Your task to perform on an android device: Go to Android settings Image 0: 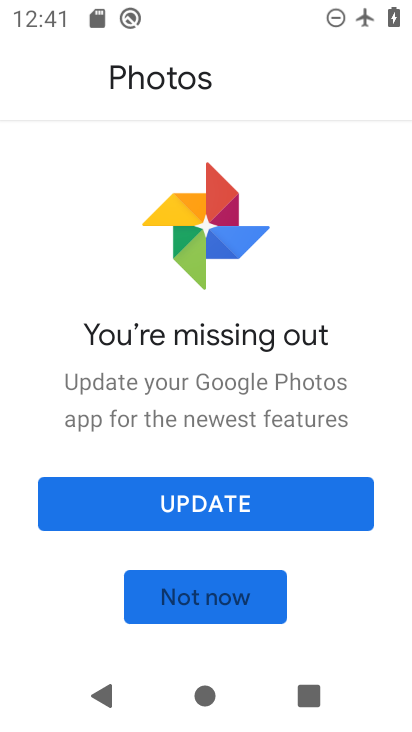
Step 0: press home button
Your task to perform on an android device: Go to Android settings Image 1: 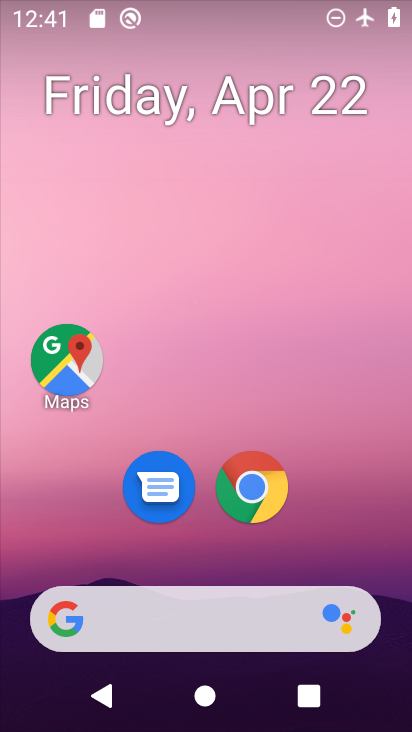
Step 1: drag from (245, 572) to (244, 173)
Your task to perform on an android device: Go to Android settings Image 2: 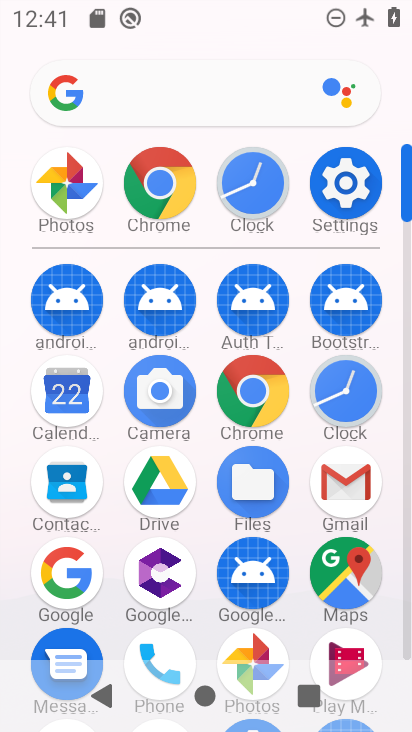
Step 2: click (338, 175)
Your task to perform on an android device: Go to Android settings Image 3: 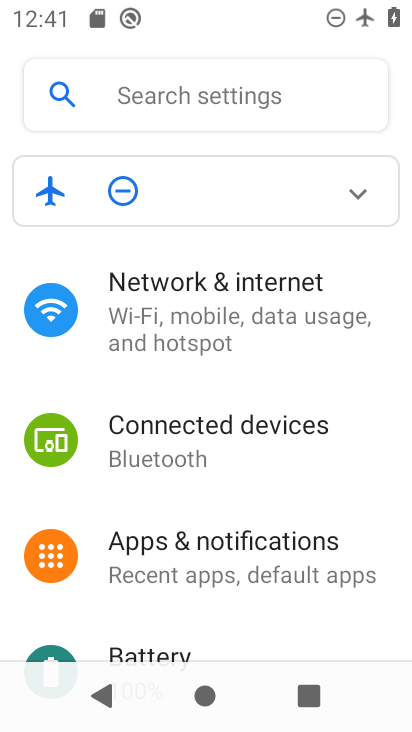
Step 3: drag from (251, 592) to (299, 77)
Your task to perform on an android device: Go to Android settings Image 4: 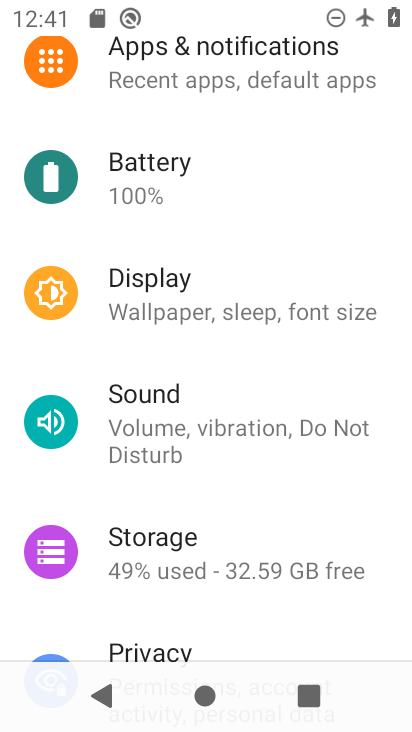
Step 4: drag from (149, 534) to (237, 44)
Your task to perform on an android device: Go to Android settings Image 5: 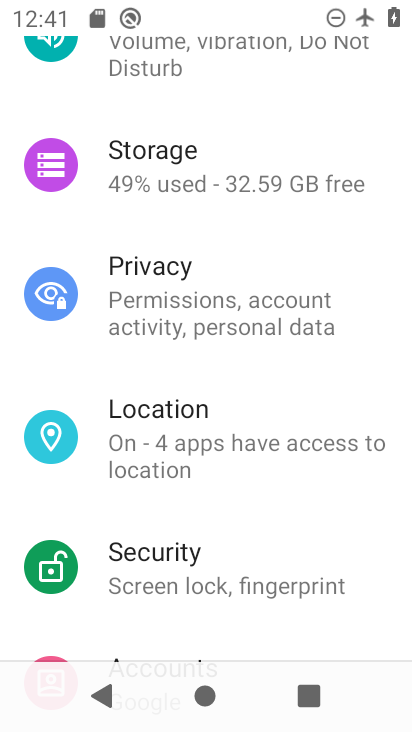
Step 5: drag from (184, 488) to (311, 65)
Your task to perform on an android device: Go to Android settings Image 6: 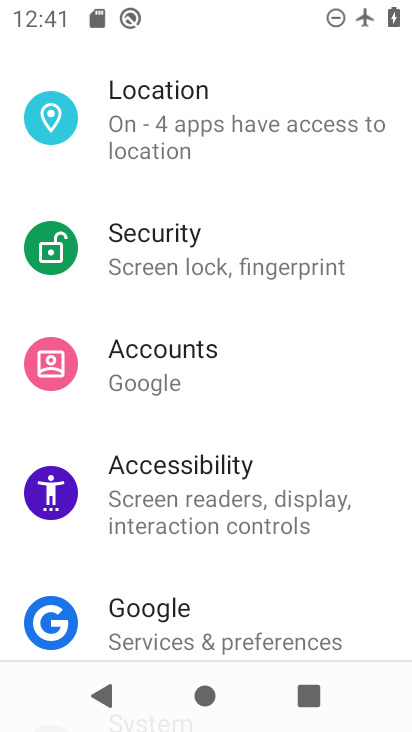
Step 6: drag from (170, 591) to (287, 166)
Your task to perform on an android device: Go to Android settings Image 7: 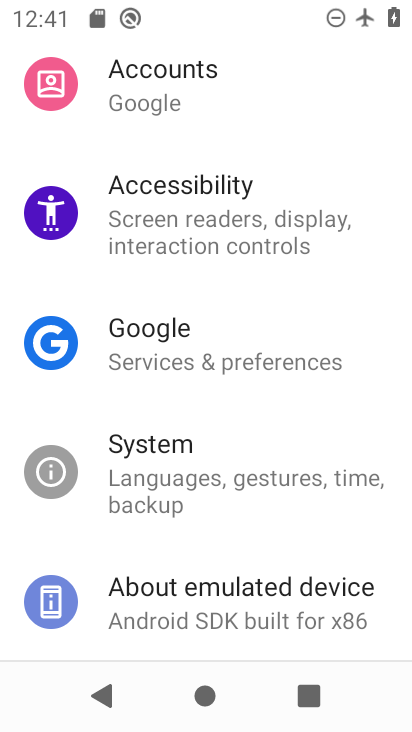
Step 7: click (208, 587)
Your task to perform on an android device: Go to Android settings Image 8: 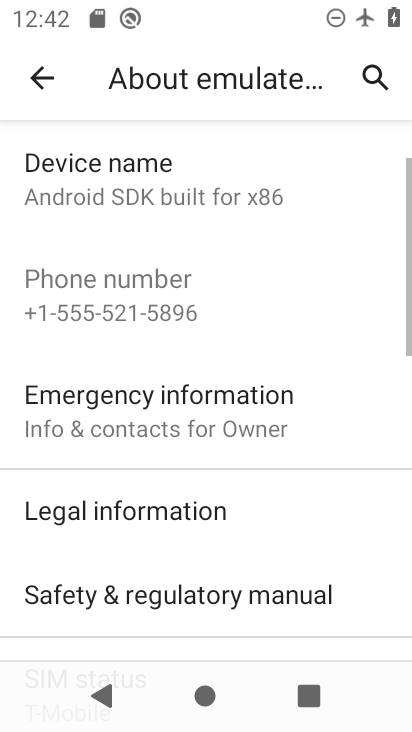
Step 8: drag from (211, 584) to (330, 141)
Your task to perform on an android device: Go to Android settings Image 9: 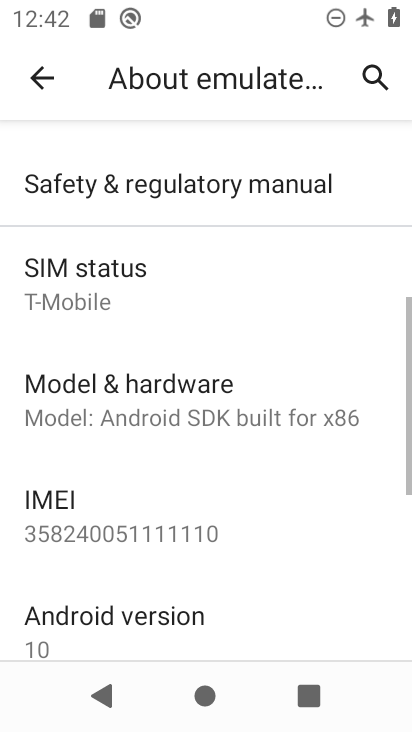
Step 9: click (137, 625)
Your task to perform on an android device: Go to Android settings Image 10: 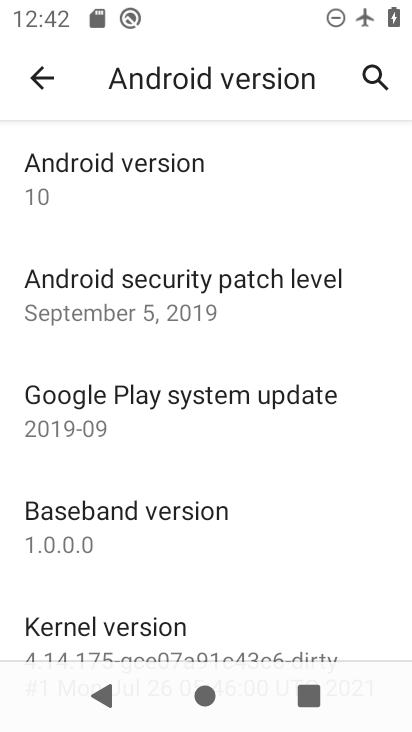
Step 10: task complete